Your task to perform on an android device: toggle location history Image 0: 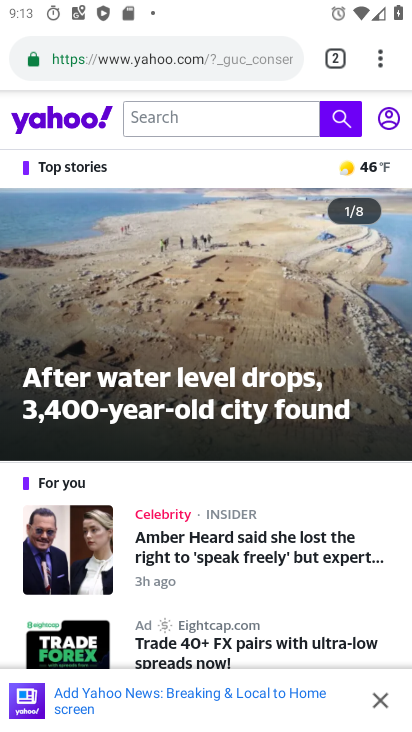
Step 0: press home button
Your task to perform on an android device: toggle location history Image 1: 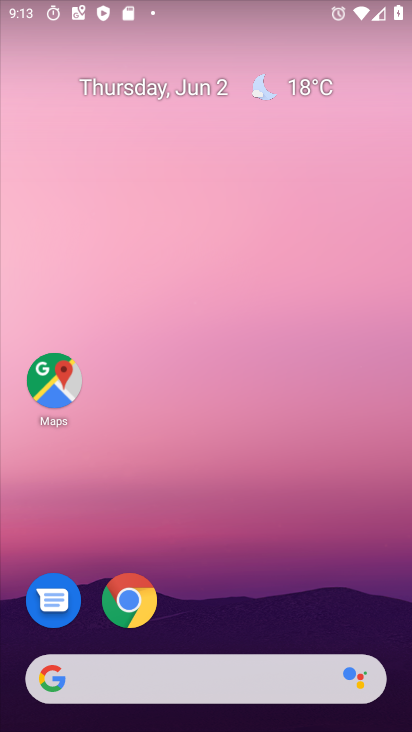
Step 1: drag from (319, 603) to (327, 268)
Your task to perform on an android device: toggle location history Image 2: 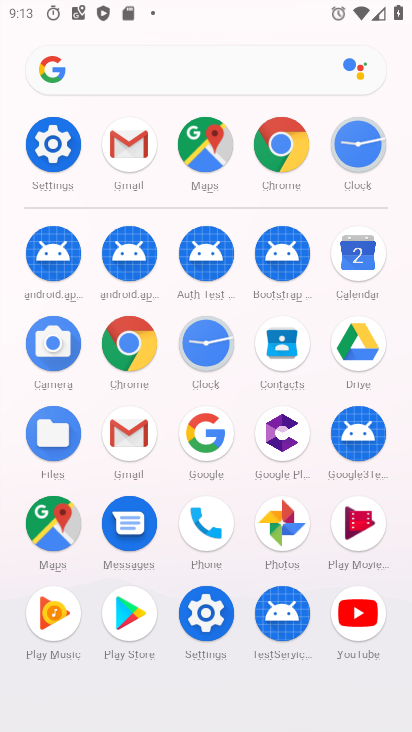
Step 2: click (215, 611)
Your task to perform on an android device: toggle location history Image 3: 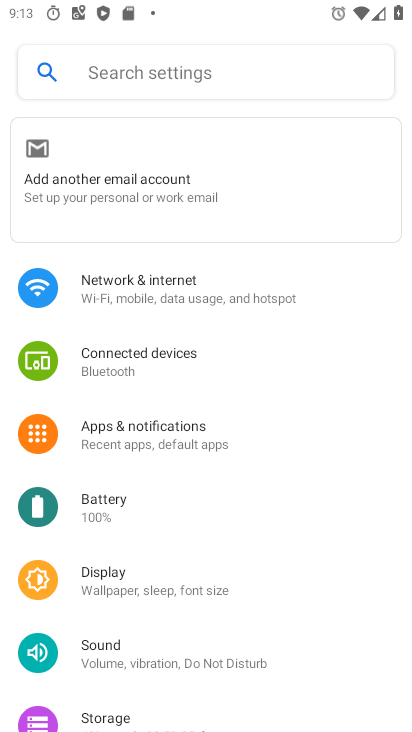
Step 3: drag from (354, 476) to (355, 358)
Your task to perform on an android device: toggle location history Image 4: 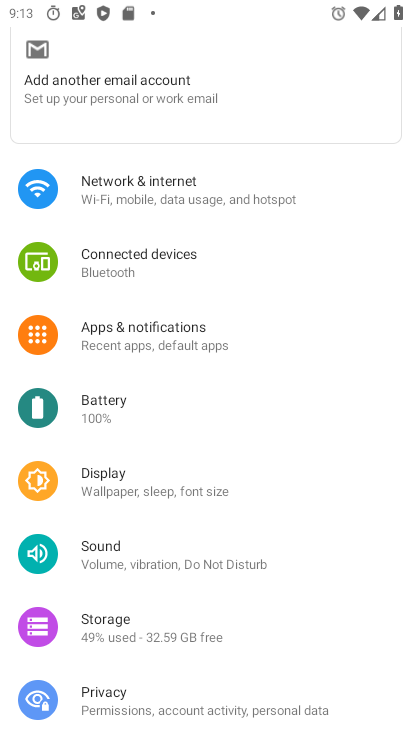
Step 4: drag from (371, 443) to (362, 314)
Your task to perform on an android device: toggle location history Image 5: 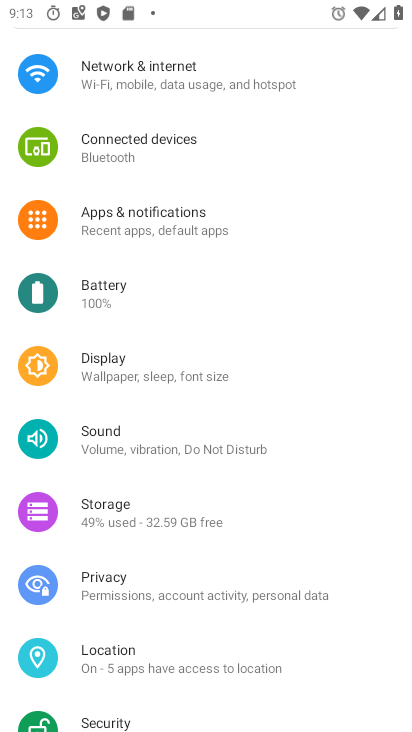
Step 5: drag from (352, 489) to (357, 370)
Your task to perform on an android device: toggle location history Image 6: 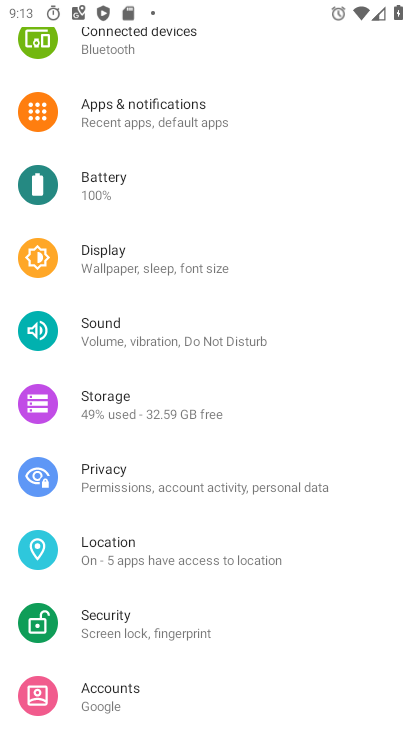
Step 6: drag from (359, 465) to (364, 368)
Your task to perform on an android device: toggle location history Image 7: 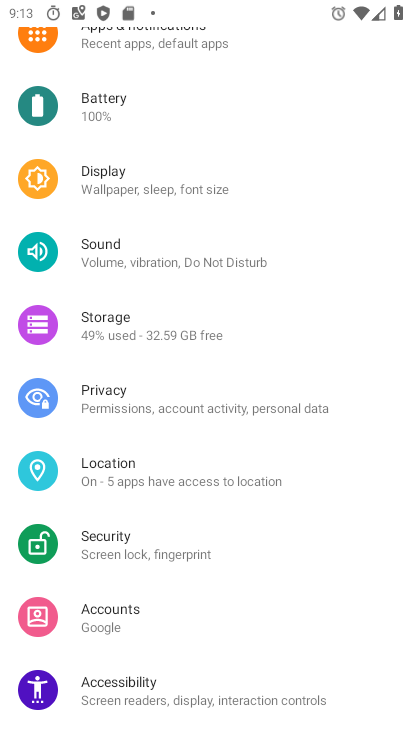
Step 7: drag from (351, 502) to (355, 364)
Your task to perform on an android device: toggle location history Image 8: 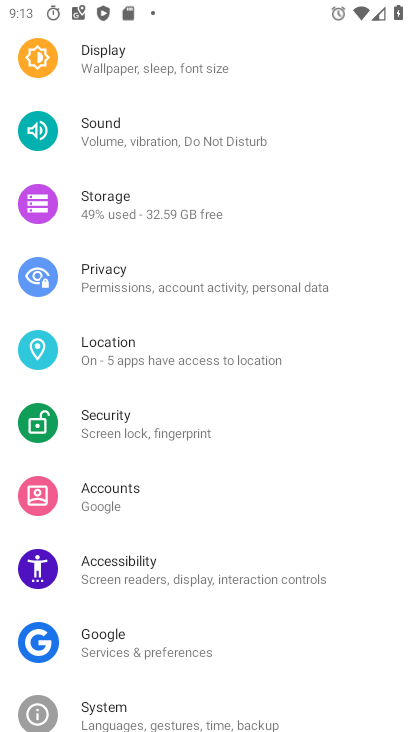
Step 8: click (301, 364)
Your task to perform on an android device: toggle location history Image 9: 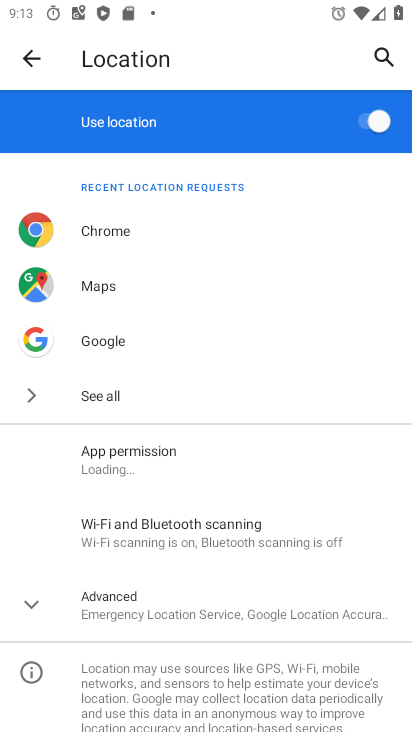
Step 9: drag from (316, 472) to (316, 330)
Your task to perform on an android device: toggle location history Image 10: 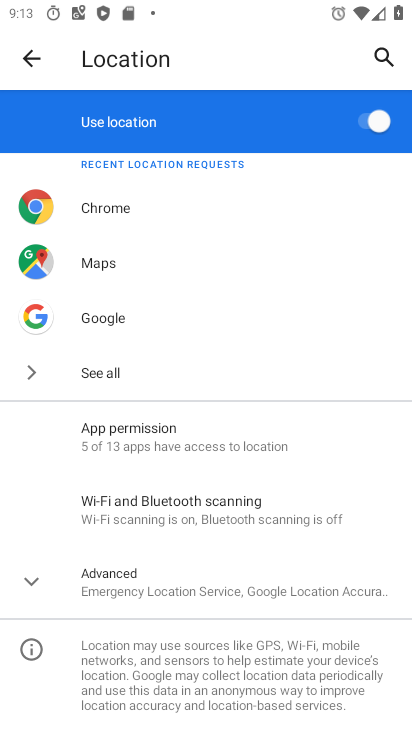
Step 10: click (313, 574)
Your task to perform on an android device: toggle location history Image 11: 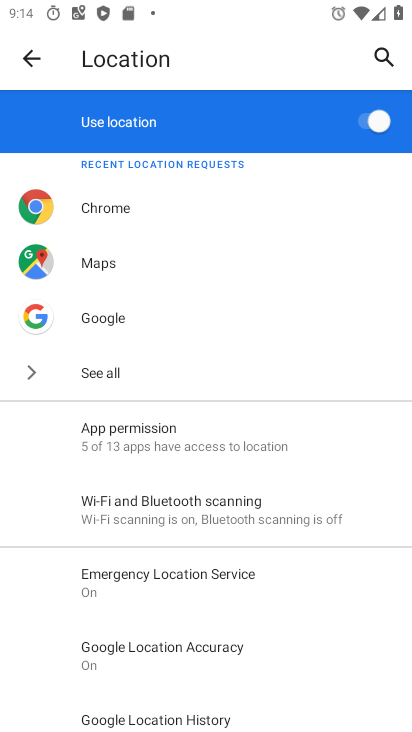
Step 11: drag from (308, 613) to (328, 360)
Your task to perform on an android device: toggle location history Image 12: 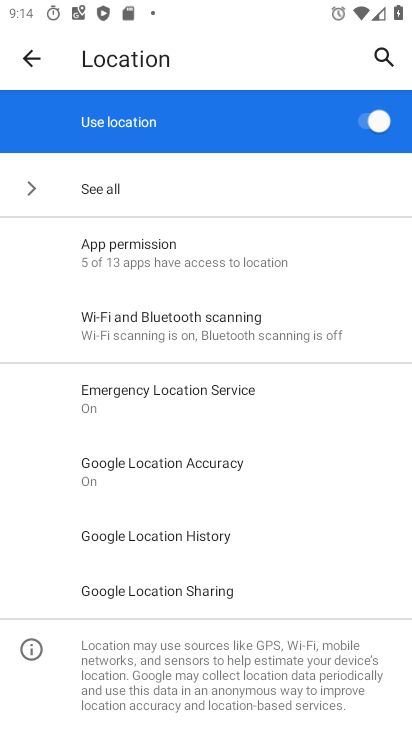
Step 12: click (228, 549)
Your task to perform on an android device: toggle location history Image 13: 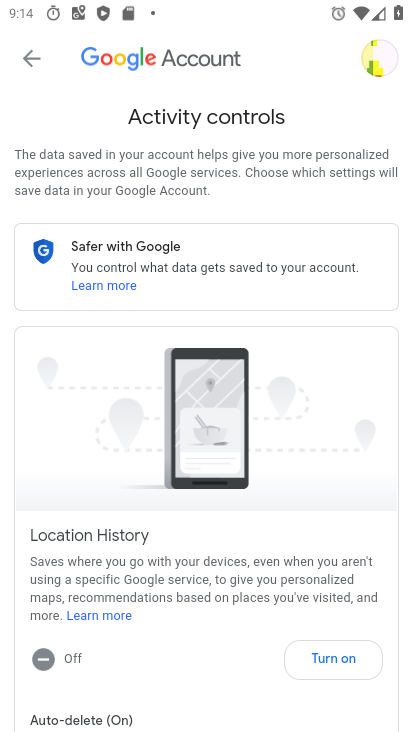
Step 13: click (363, 661)
Your task to perform on an android device: toggle location history Image 14: 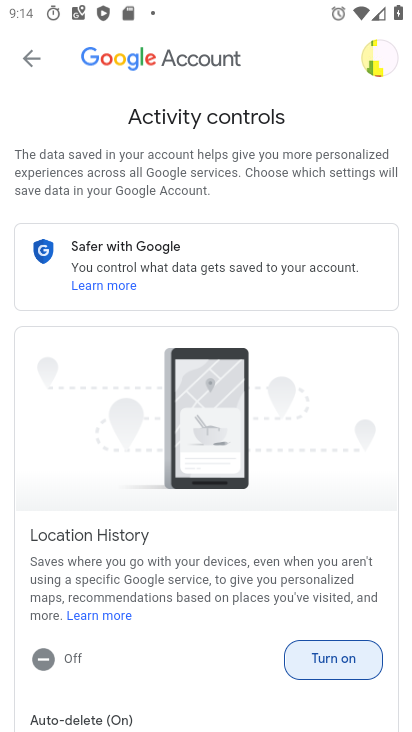
Step 14: click (344, 653)
Your task to perform on an android device: toggle location history Image 15: 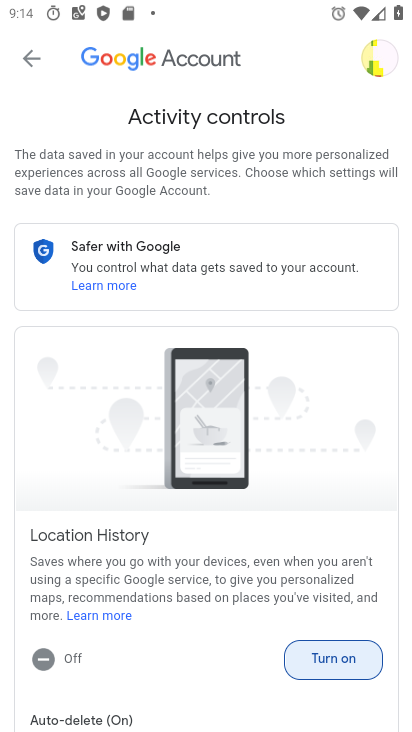
Step 15: click (333, 661)
Your task to perform on an android device: toggle location history Image 16: 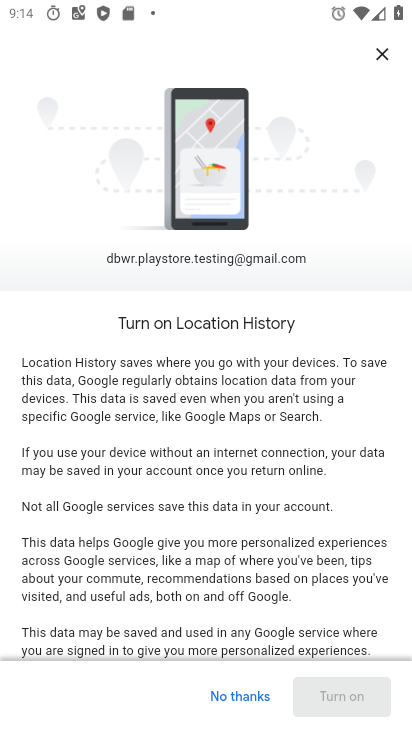
Step 16: drag from (270, 551) to (267, 318)
Your task to perform on an android device: toggle location history Image 17: 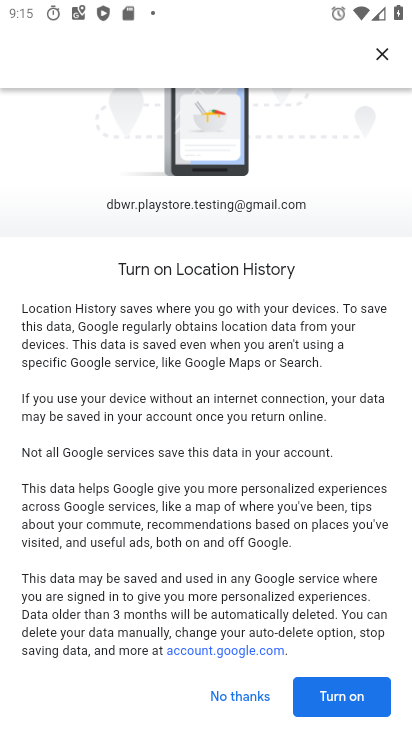
Step 17: click (342, 695)
Your task to perform on an android device: toggle location history Image 18: 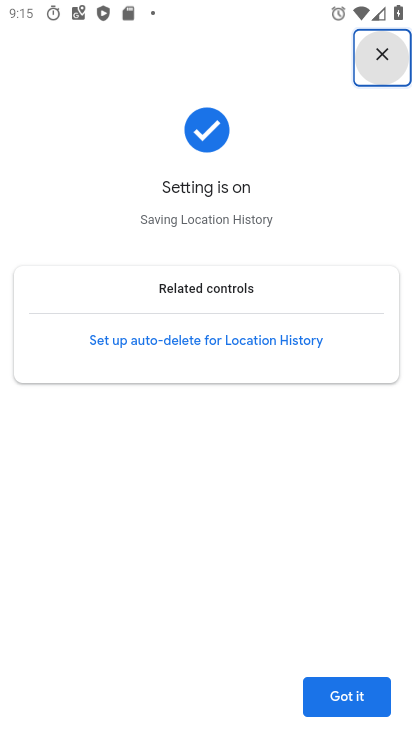
Step 18: task complete